Your task to perform on an android device: install app "Google Play services" Image 0: 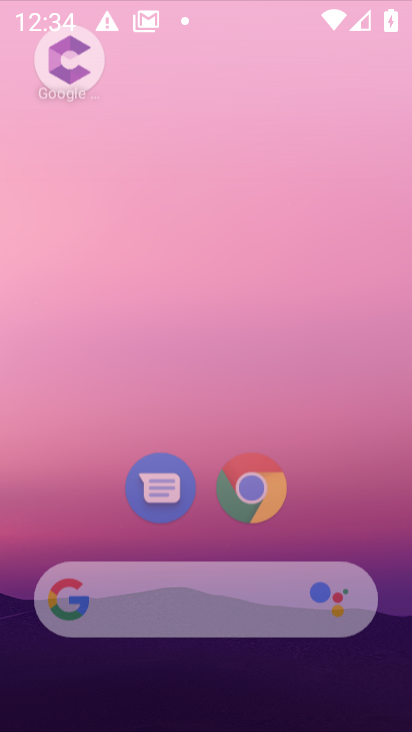
Step 0: click (182, 81)
Your task to perform on an android device: install app "Google Play services" Image 1: 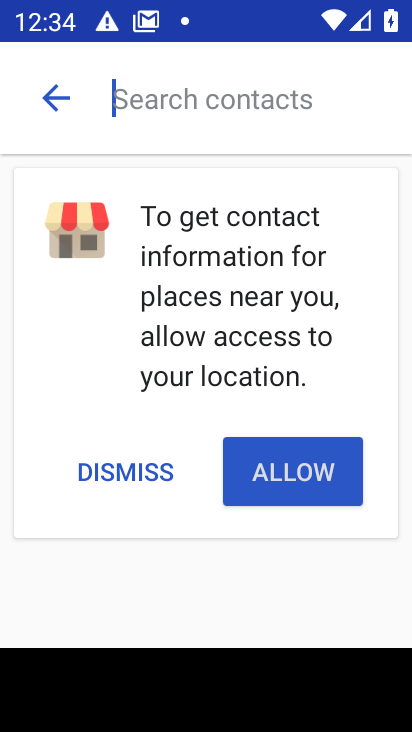
Step 1: press home button
Your task to perform on an android device: install app "Google Play services" Image 2: 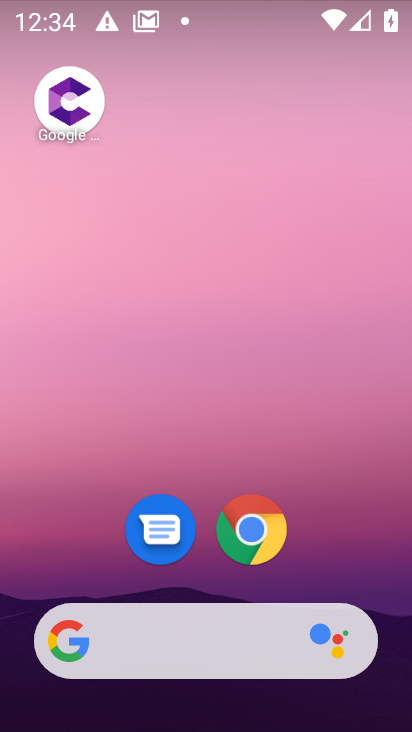
Step 2: drag from (210, 614) to (279, 1)
Your task to perform on an android device: install app "Google Play services" Image 3: 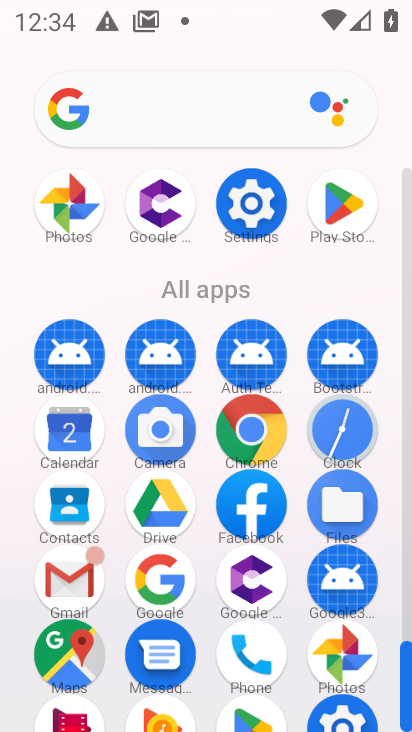
Step 3: click (348, 268)
Your task to perform on an android device: install app "Google Play services" Image 4: 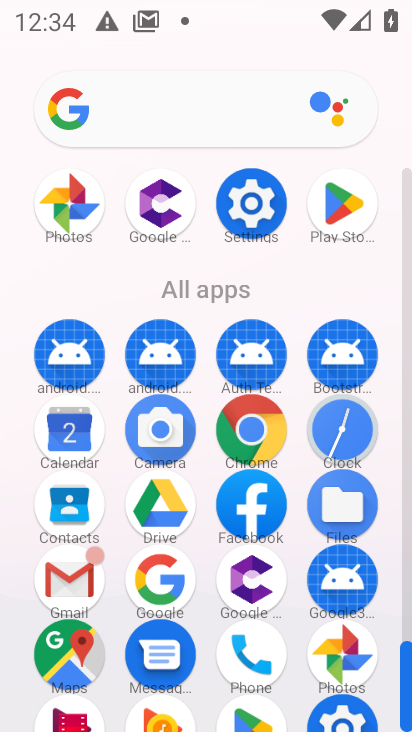
Step 4: click (337, 197)
Your task to perform on an android device: install app "Google Play services" Image 5: 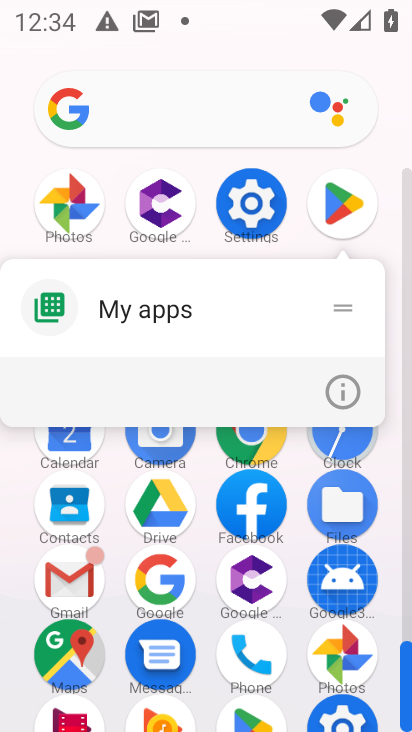
Step 5: click (348, 211)
Your task to perform on an android device: install app "Google Play services" Image 6: 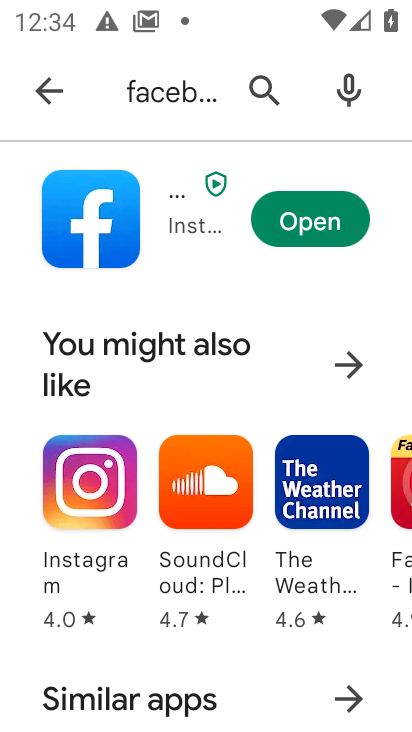
Step 6: click (267, 63)
Your task to perform on an android device: install app "Google Play services" Image 7: 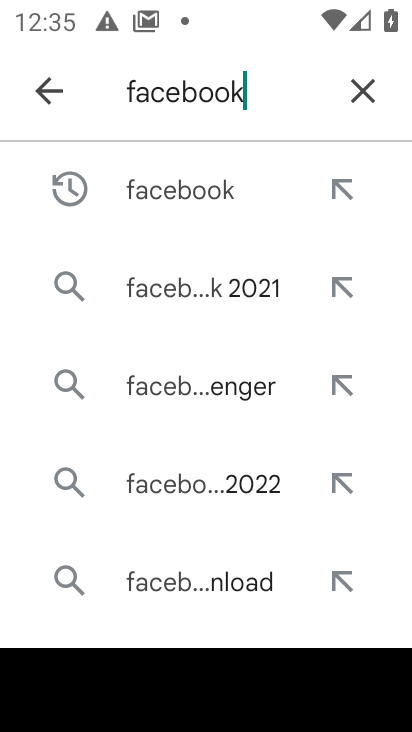
Step 7: click (357, 96)
Your task to perform on an android device: install app "Google Play services" Image 8: 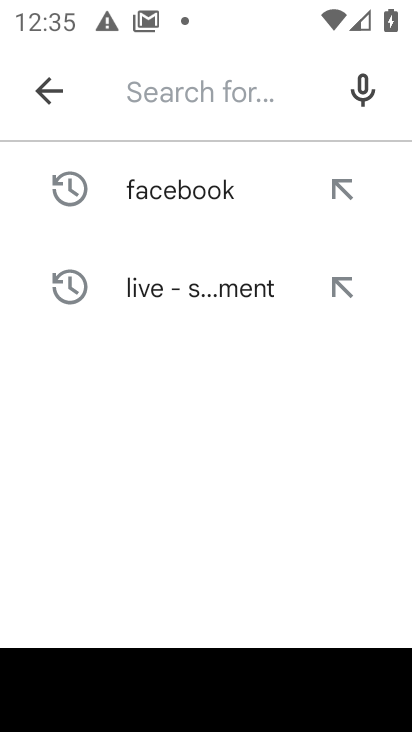
Step 8: type "Google Play services"
Your task to perform on an android device: install app "Google Play services" Image 9: 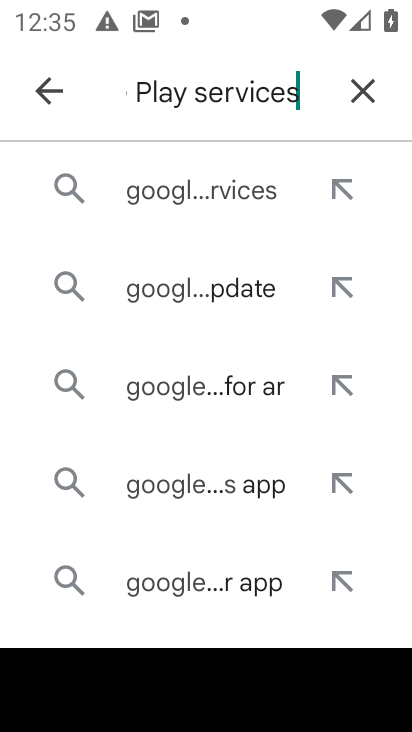
Step 9: click (165, 190)
Your task to perform on an android device: install app "Google Play services" Image 10: 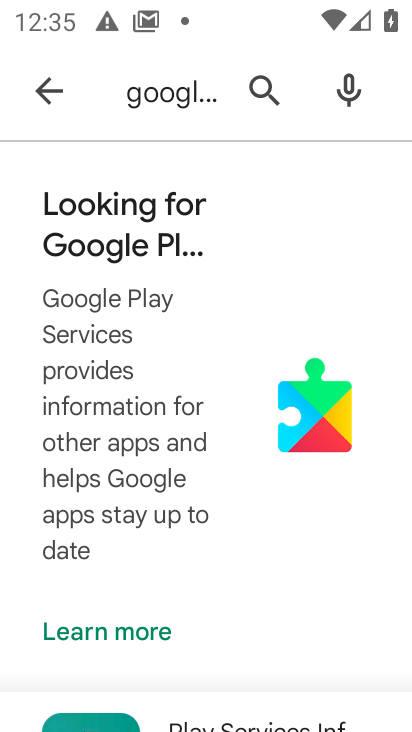
Step 10: drag from (255, 588) to (228, 284)
Your task to perform on an android device: install app "Google Play services" Image 11: 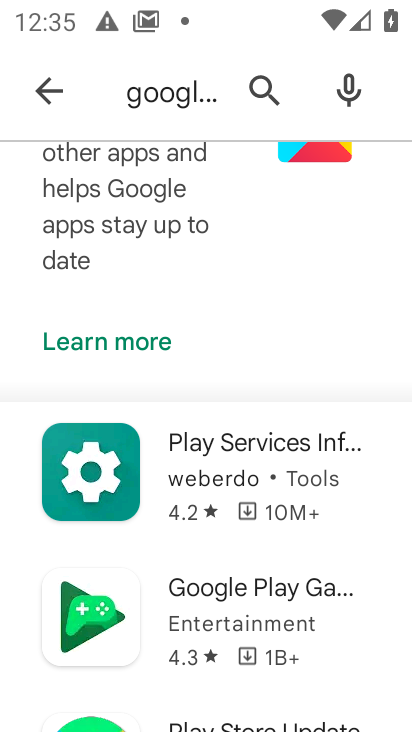
Step 11: click (297, 208)
Your task to perform on an android device: install app "Google Play services" Image 12: 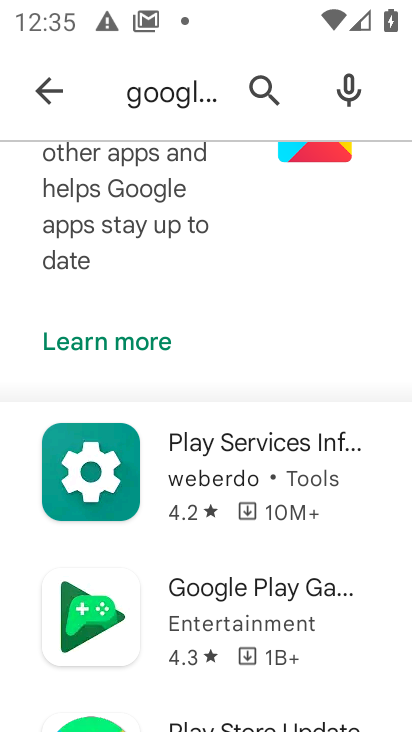
Step 12: task complete